Your task to perform on an android device: toggle show notifications on the lock screen Image 0: 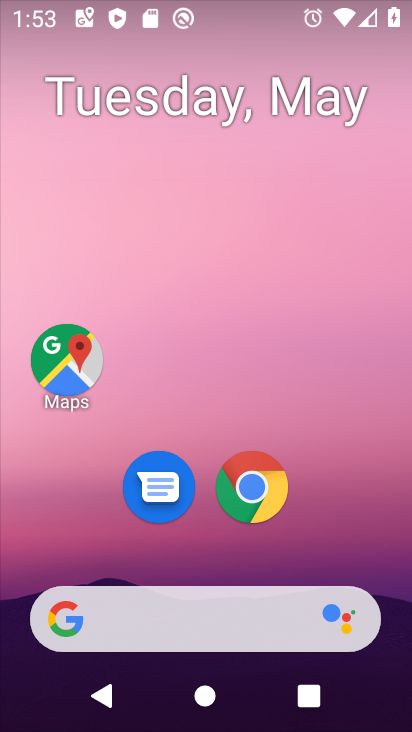
Step 0: drag from (347, 561) to (345, 204)
Your task to perform on an android device: toggle show notifications on the lock screen Image 1: 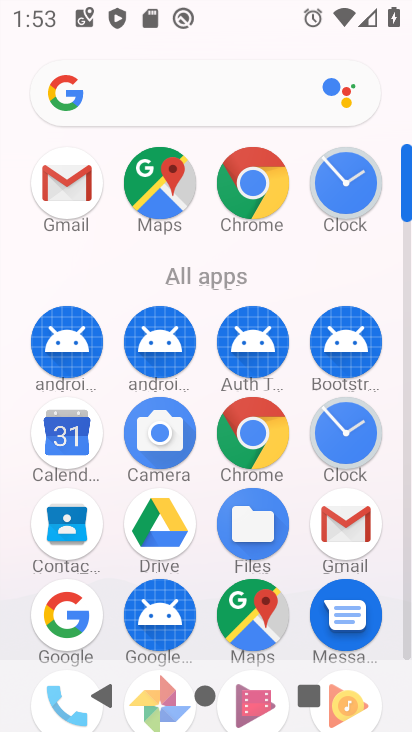
Step 1: drag from (297, 477) to (296, 184)
Your task to perform on an android device: toggle show notifications on the lock screen Image 2: 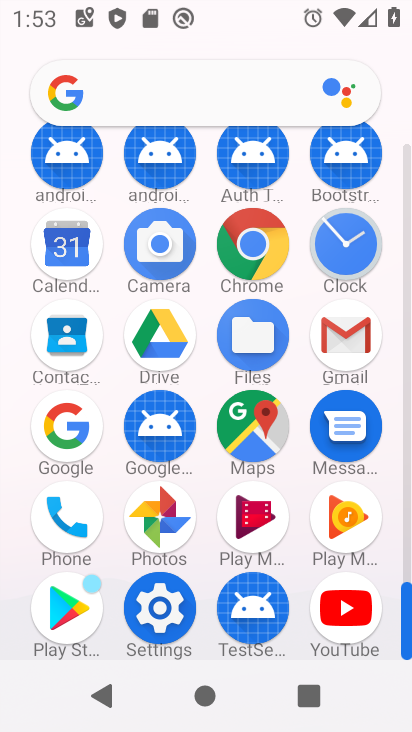
Step 2: click (176, 616)
Your task to perform on an android device: toggle show notifications on the lock screen Image 3: 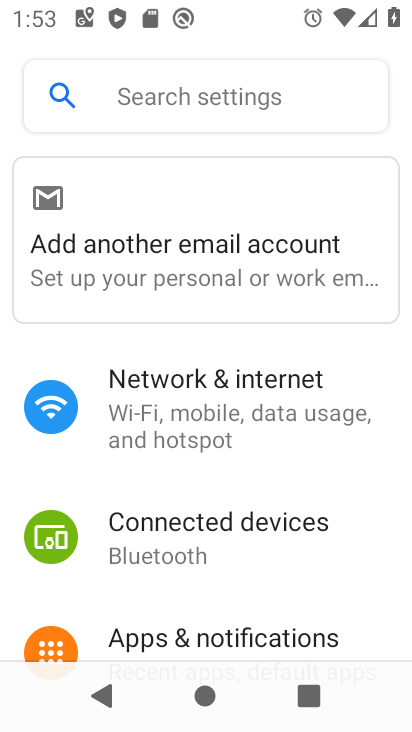
Step 3: drag from (364, 534) to (356, 388)
Your task to perform on an android device: toggle show notifications on the lock screen Image 4: 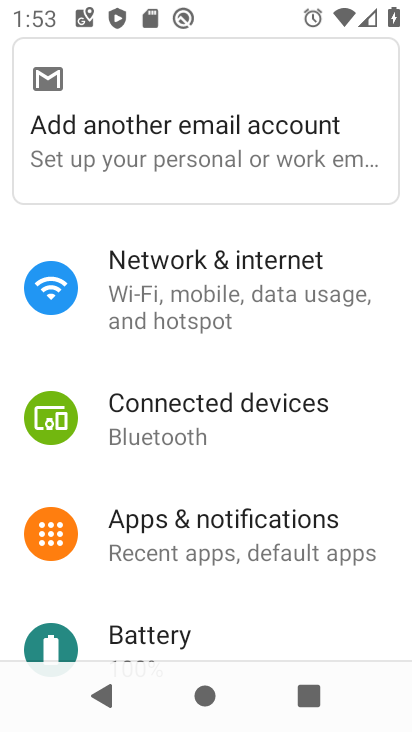
Step 4: drag from (362, 605) to (364, 420)
Your task to perform on an android device: toggle show notifications on the lock screen Image 5: 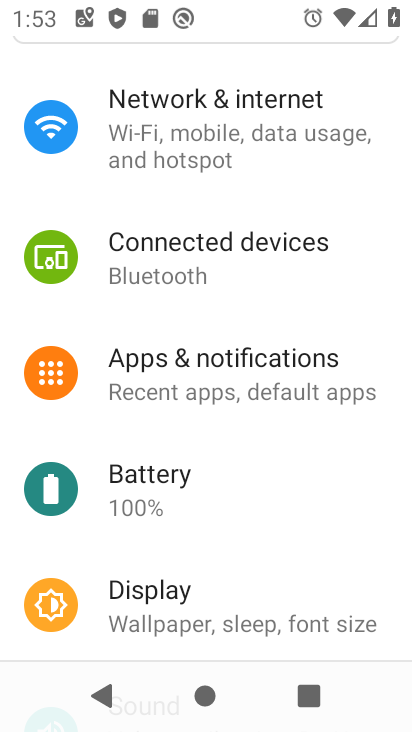
Step 5: drag from (352, 496) to (368, 317)
Your task to perform on an android device: toggle show notifications on the lock screen Image 6: 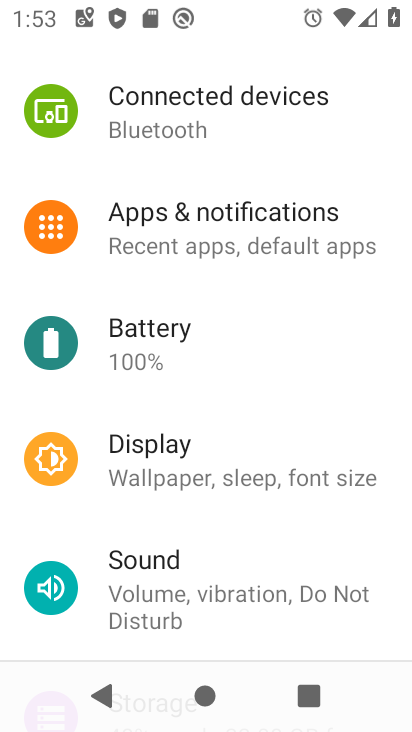
Step 6: click (295, 218)
Your task to perform on an android device: toggle show notifications on the lock screen Image 7: 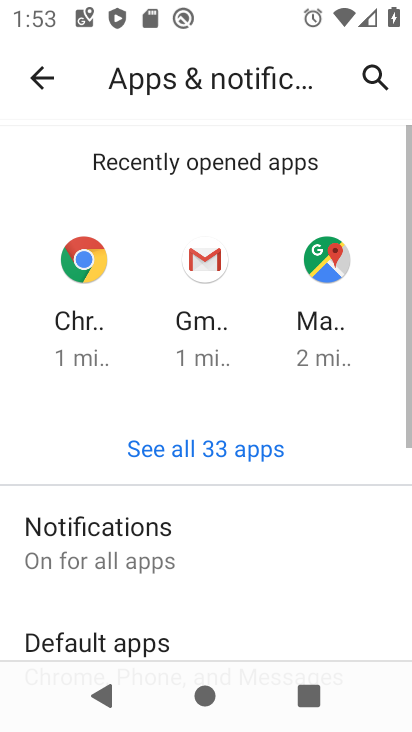
Step 7: drag from (297, 547) to (315, 419)
Your task to perform on an android device: toggle show notifications on the lock screen Image 8: 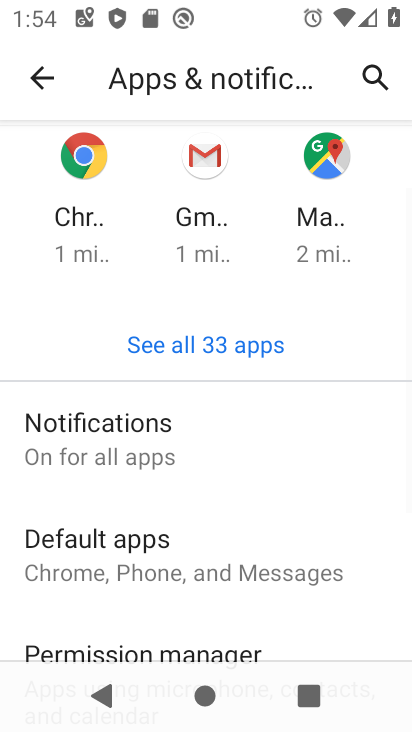
Step 8: drag from (365, 505) to (363, 411)
Your task to perform on an android device: toggle show notifications on the lock screen Image 9: 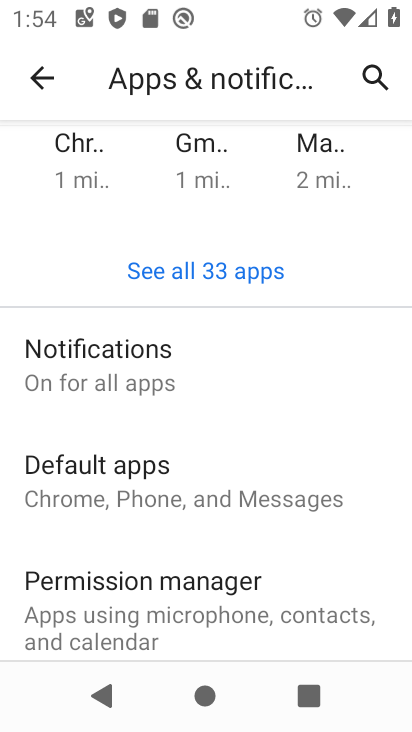
Step 9: click (147, 342)
Your task to perform on an android device: toggle show notifications on the lock screen Image 10: 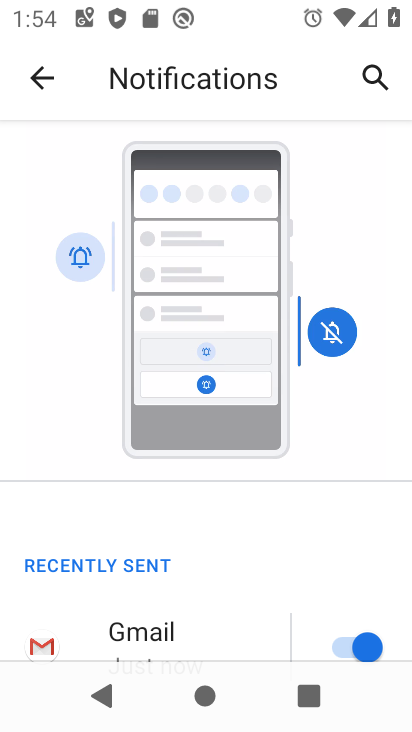
Step 10: drag from (334, 546) to (344, 405)
Your task to perform on an android device: toggle show notifications on the lock screen Image 11: 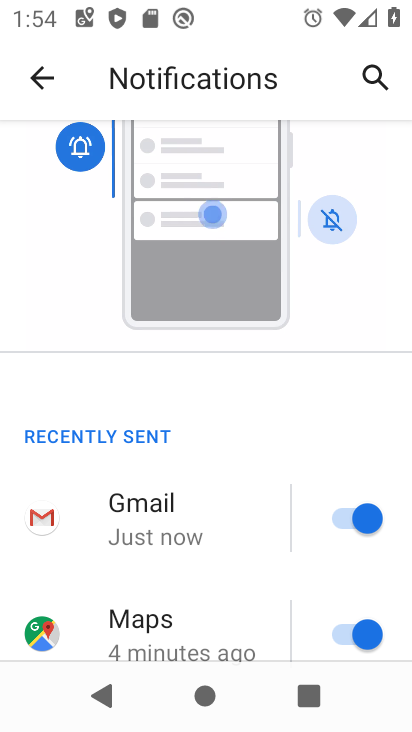
Step 11: drag from (312, 573) to (304, 395)
Your task to perform on an android device: toggle show notifications on the lock screen Image 12: 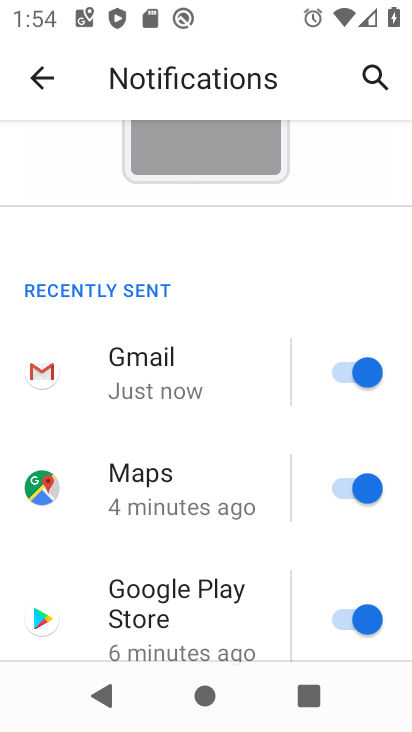
Step 12: drag from (257, 601) to (256, 400)
Your task to perform on an android device: toggle show notifications on the lock screen Image 13: 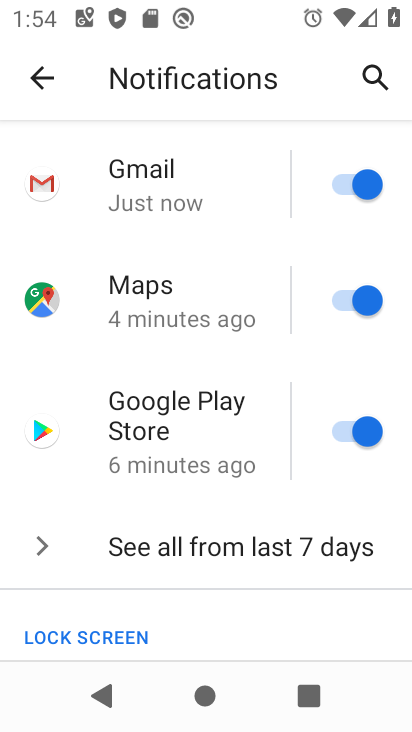
Step 13: drag from (262, 587) to (262, 397)
Your task to perform on an android device: toggle show notifications on the lock screen Image 14: 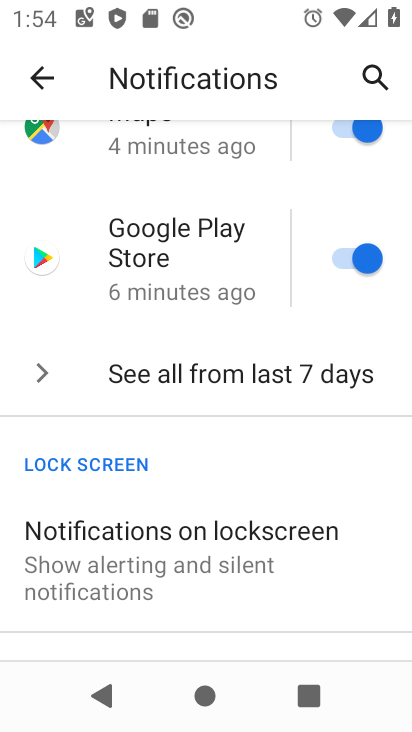
Step 14: click (263, 544)
Your task to perform on an android device: toggle show notifications on the lock screen Image 15: 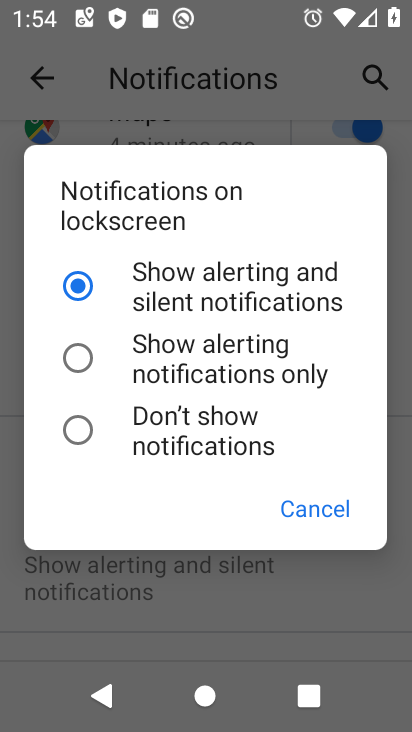
Step 15: click (78, 363)
Your task to perform on an android device: toggle show notifications on the lock screen Image 16: 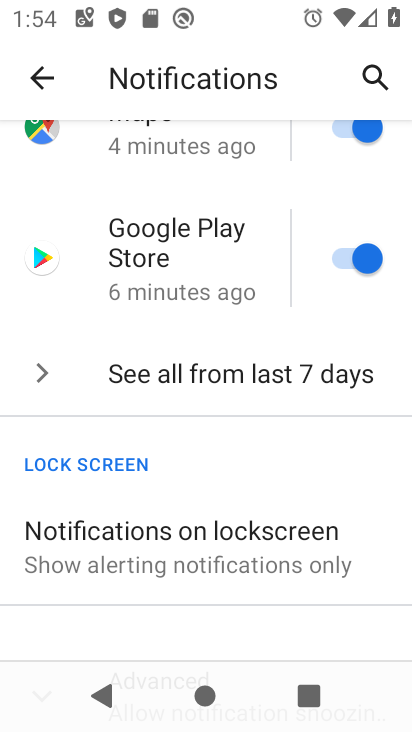
Step 16: task complete